Your task to perform on an android device: Open settings on Google Maps Image 0: 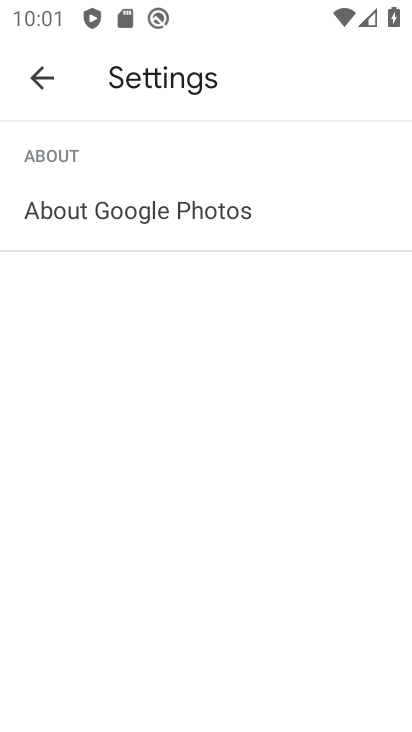
Step 0: press back button
Your task to perform on an android device: Open settings on Google Maps Image 1: 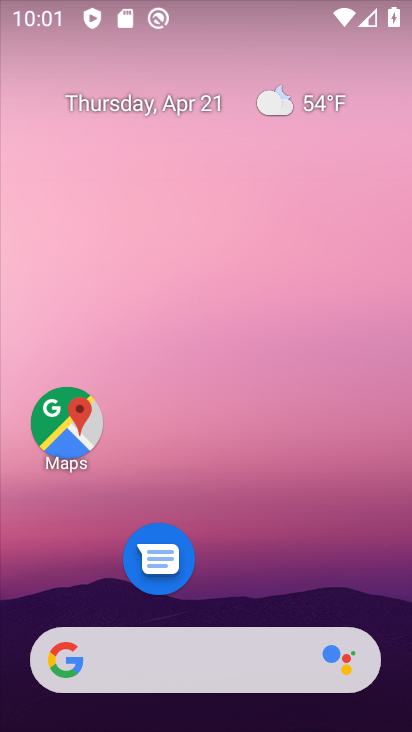
Step 1: click (56, 424)
Your task to perform on an android device: Open settings on Google Maps Image 2: 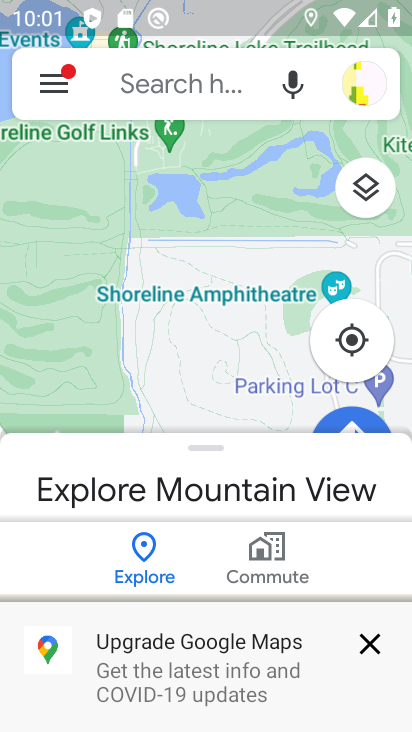
Step 2: click (42, 78)
Your task to perform on an android device: Open settings on Google Maps Image 3: 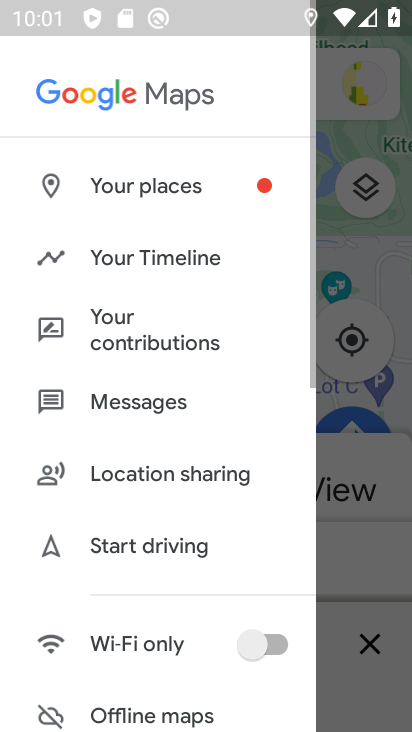
Step 3: drag from (124, 682) to (227, 86)
Your task to perform on an android device: Open settings on Google Maps Image 4: 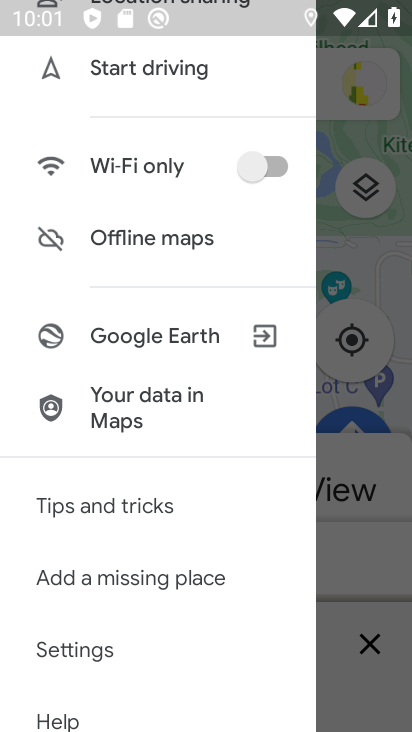
Step 4: click (113, 658)
Your task to perform on an android device: Open settings on Google Maps Image 5: 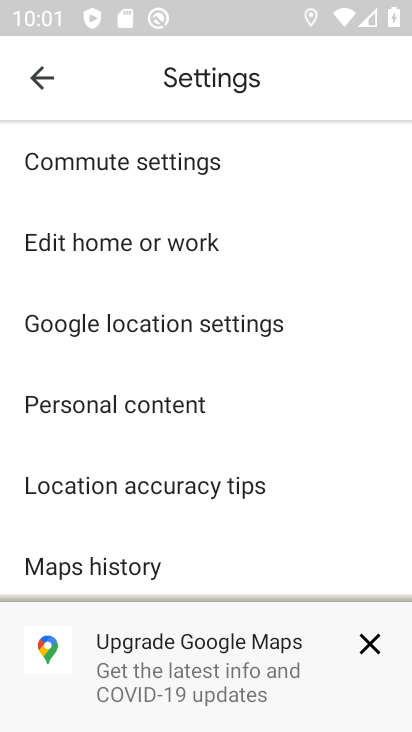
Step 5: task complete